Your task to perform on an android device: allow notifications from all sites in the chrome app Image 0: 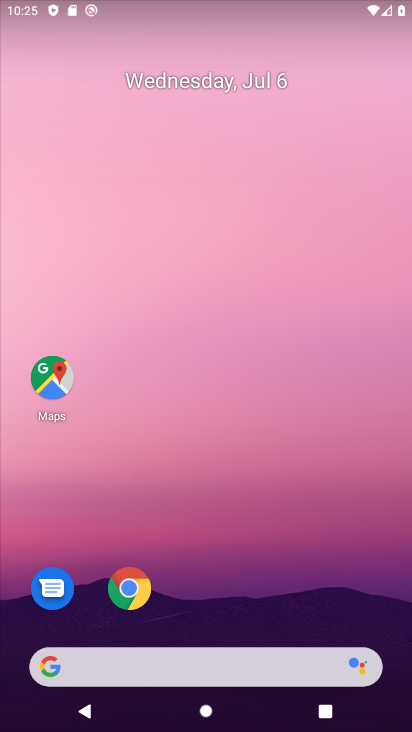
Step 0: click (129, 592)
Your task to perform on an android device: allow notifications from all sites in the chrome app Image 1: 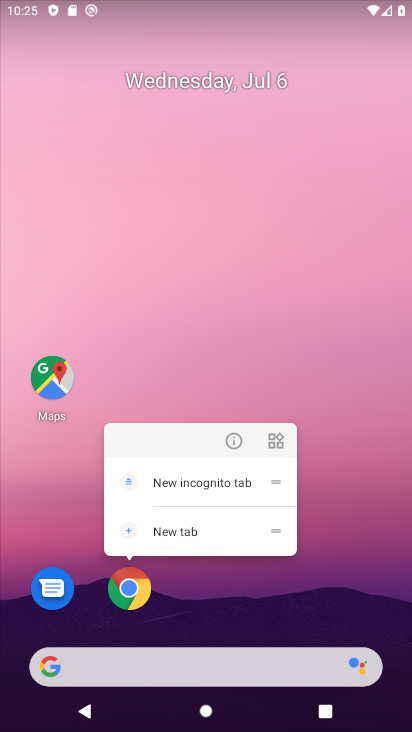
Step 1: click (118, 598)
Your task to perform on an android device: allow notifications from all sites in the chrome app Image 2: 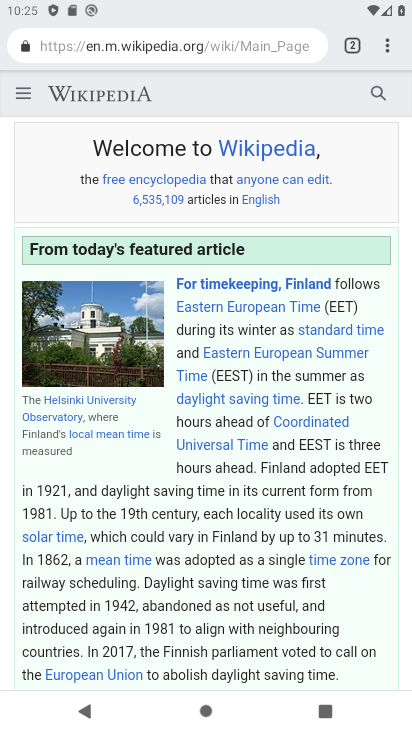
Step 2: click (383, 55)
Your task to perform on an android device: allow notifications from all sites in the chrome app Image 3: 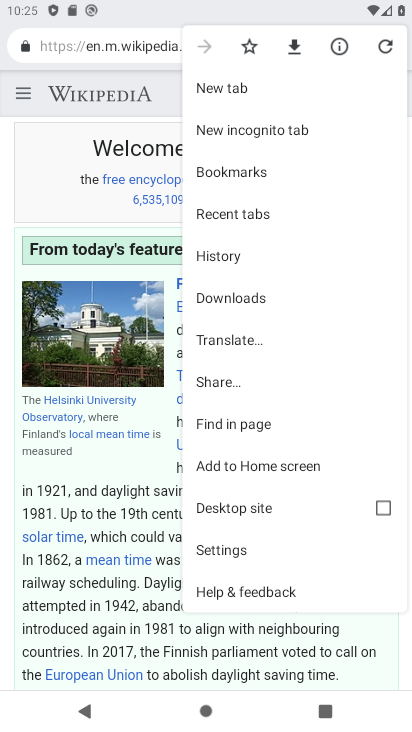
Step 3: click (239, 552)
Your task to perform on an android device: allow notifications from all sites in the chrome app Image 4: 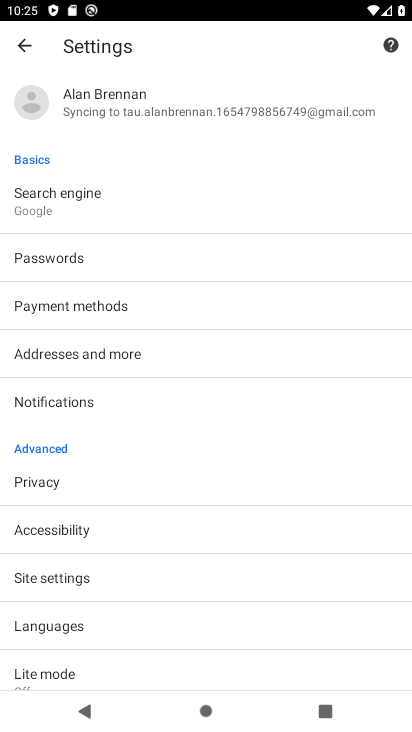
Step 4: click (60, 584)
Your task to perform on an android device: allow notifications from all sites in the chrome app Image 5: 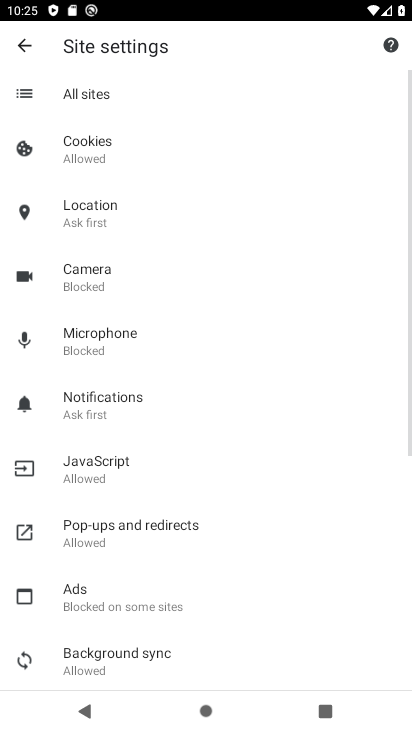
Step 5: click (84, 404)
Your task to perform on an android device: allow notifications from all sites in the chrome app Image 6: 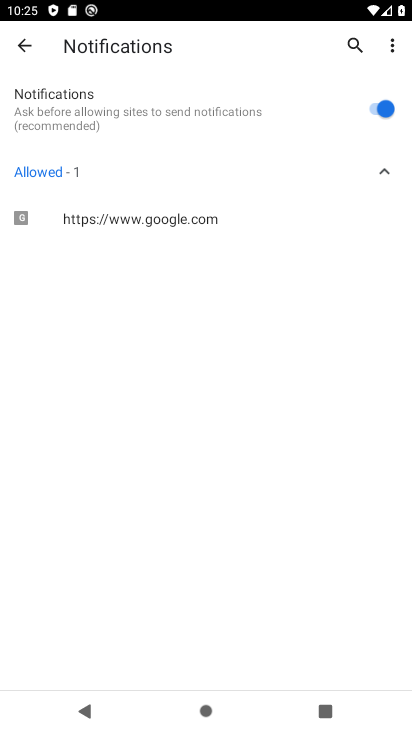
Step 6: task complete